Your task to perform on an android device: turn on showing notifications on the lock screen Image 0: 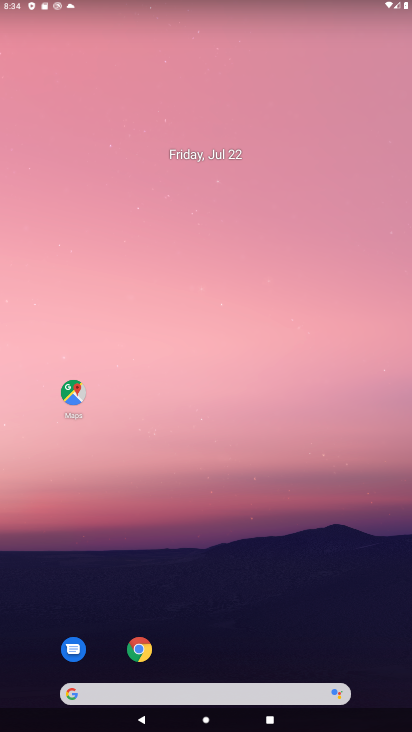
Step 0: drag from (227, 644) to (278, 339)
Your task to perform on an android device: turn on showing notifications on the lock screen Image 1: 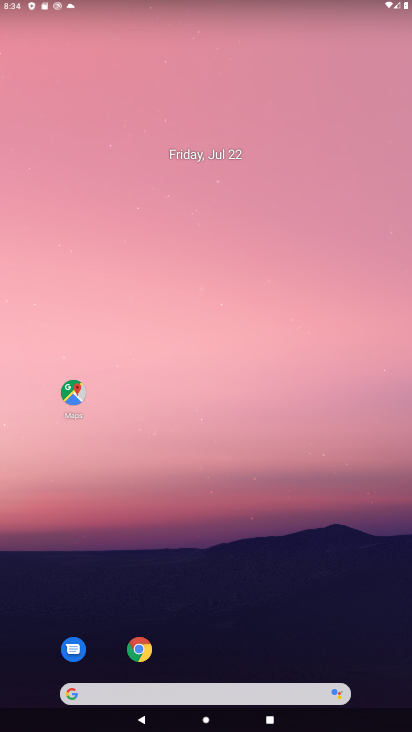
Step 1: click (278, 339)
Your task to perform on an android device: turn on showing notifications on the lock screen Image 2: 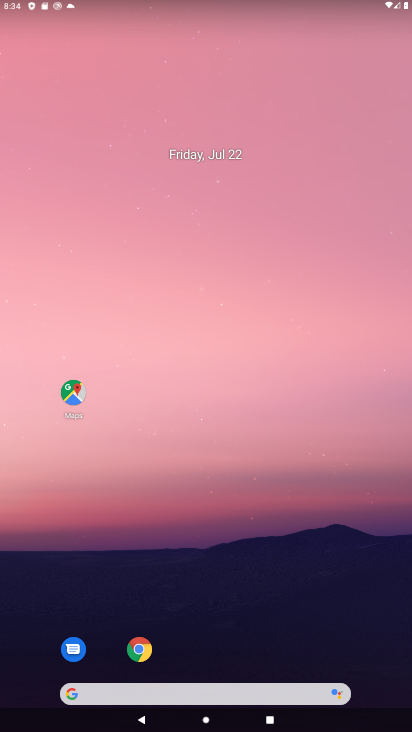
Step 2: drag from (291, 551) to (271, 211)
Your task to perform on an android device: turn on showing notifications on the lock screen Image 3: 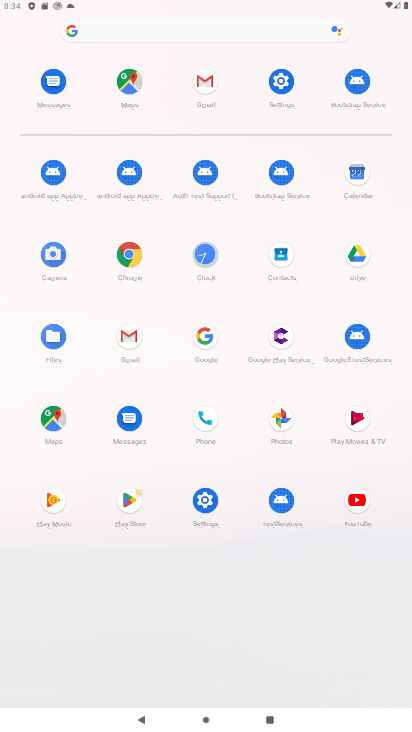
Step 3: click (208, 502)
Your task to perform on an android device: turn on showing notifications on the lock screen Image 4: 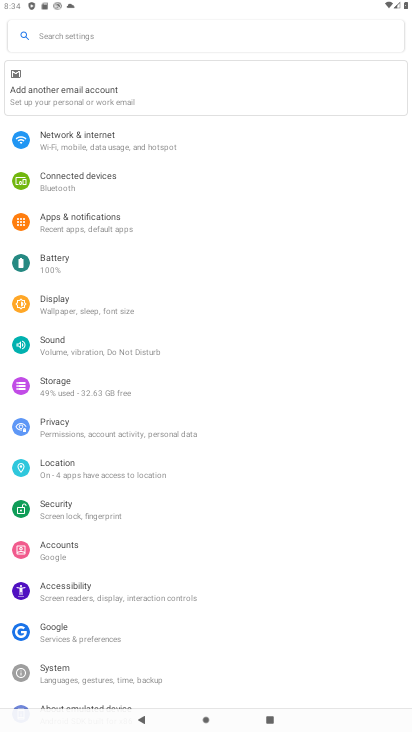
Step 4: click (77, 437)
Your task to perform on an android device: turn on showing notifications on the lock screen Image 5: 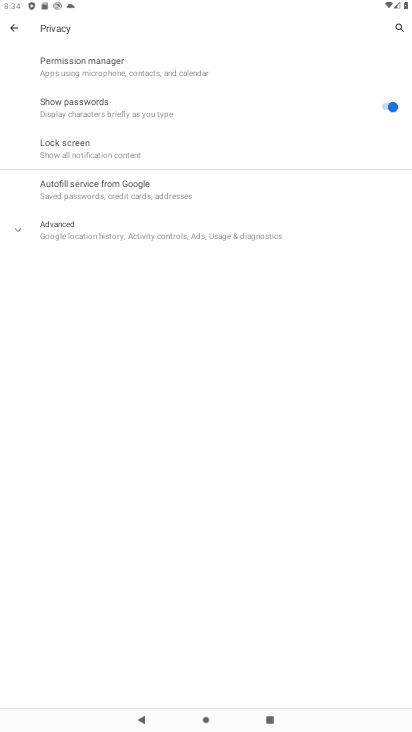
Step 5: task complete